Your task to perform on an android device: move an email to a new category in the gmail app Image 0: 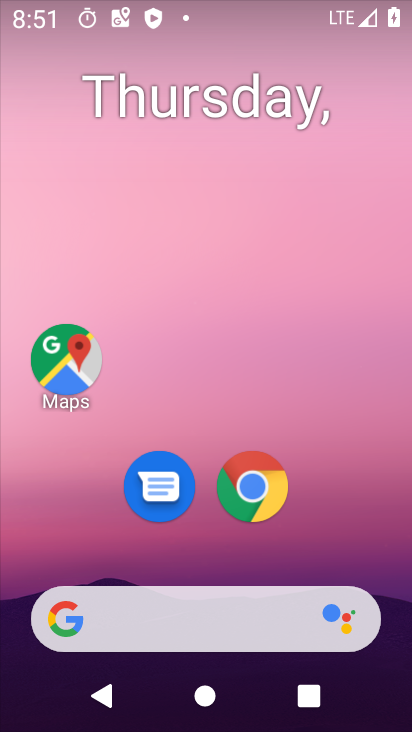
Step 0: drag from (213, 549) to (266, 89)
Your task to perform on an android device: move an email to a new category in the gmail app Image 1: 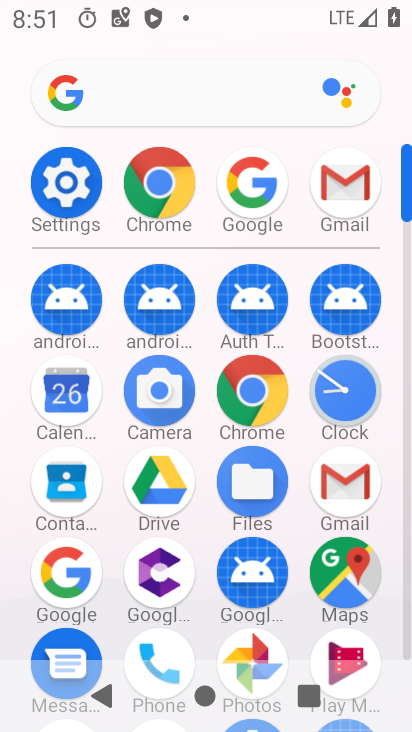
Step 1: click (357, 484)
Your task to perform on an android device: move an email to a new category in the gmail app Image 2: 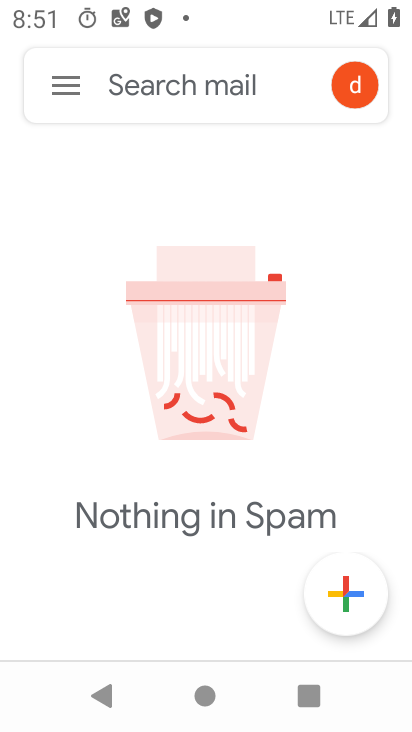
Step 2: click (76, 94)
Your task to perform on an android device: move an email to a new category in the gmail app Image 3: 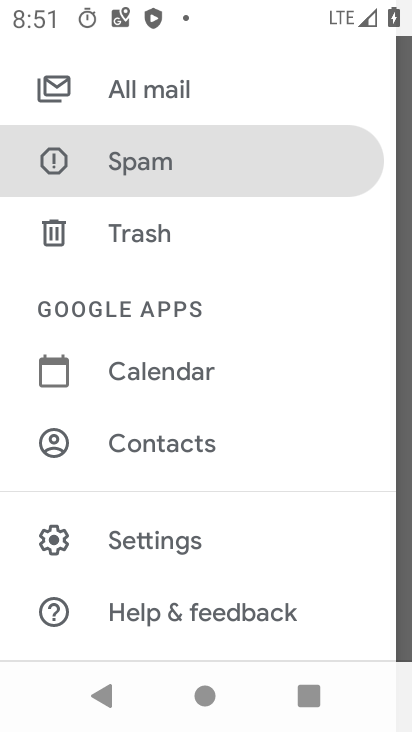
Step 3: click (185, 100)
Your task to perform on an android device: move an email to a new category in the gmail app Image 4: 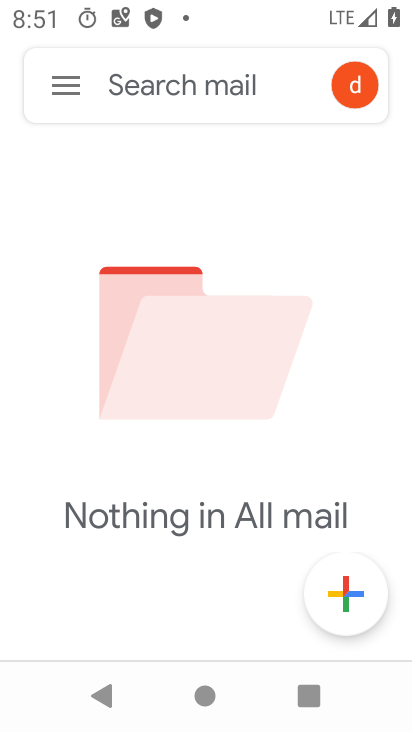
Step 4: task complete